Your task to perform on an android device: toggle notification dots Image 0: 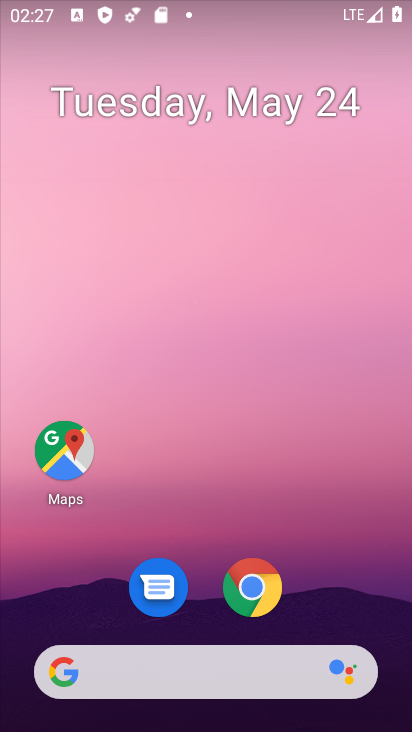
Step 0: drag from (213, 716) to (203, 211)
Your task to perform on an android device: toggle notification dots Image 1: 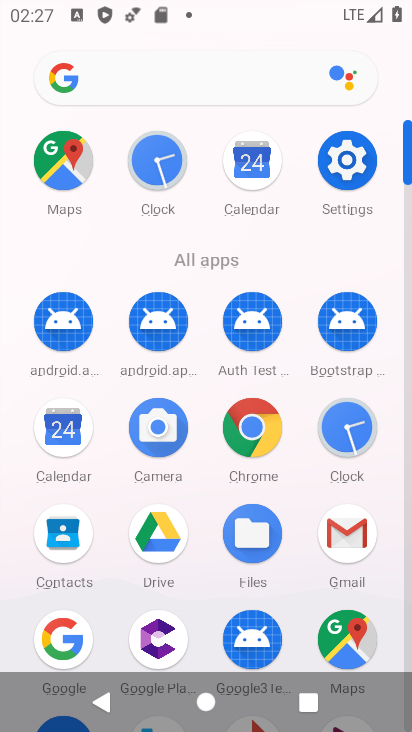
Step 1: click (345, 171)
Your task to perform on an android device: toggle notification dots Image 2: 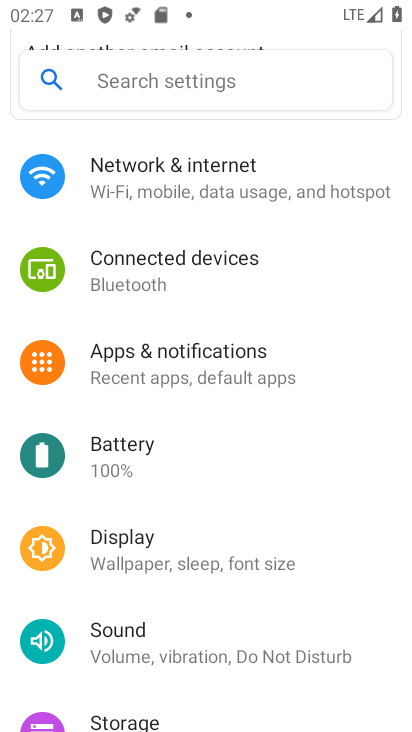
Step 2: click (213, 357)
Your task to perform on an android device: toggle notification dots Image 3: 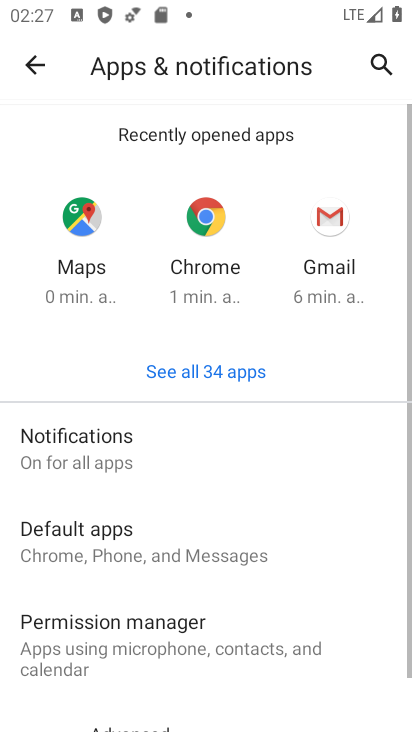
Step 3: drag from (316, 673) to (283, 128)
Your task to perform on an android device: toggle notification dots Image 4: 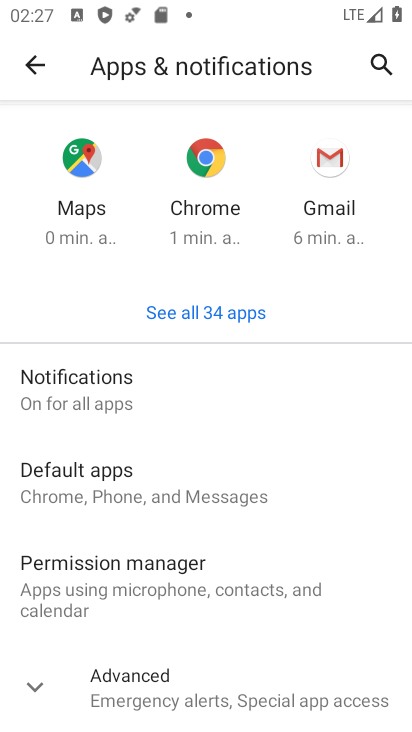
Step 4: click (131, 386)
Your task to perform on an android device: toggle notification dots Image 5: 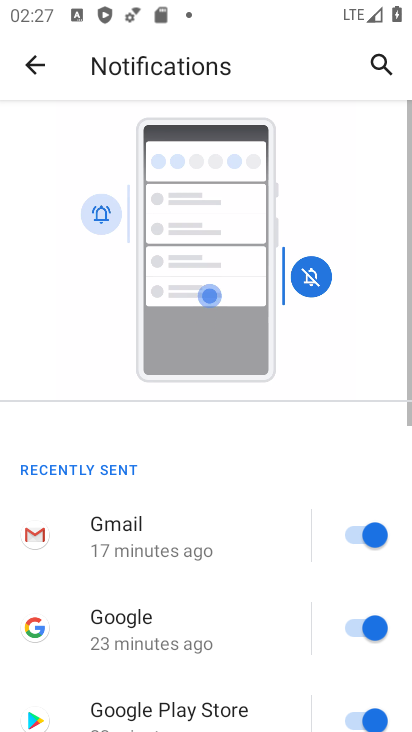
Step 5: drag from (235, 648) to (242, 72)
Your task to perform on an android device: toggle notification dots Image 6: 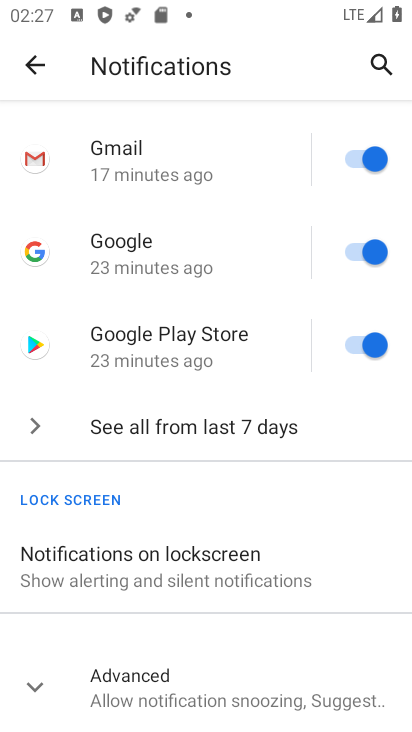
Step 6: drag from (304, 655) to (286, 174)
Your task to perform on an android device: toggle notification dots Image 7: 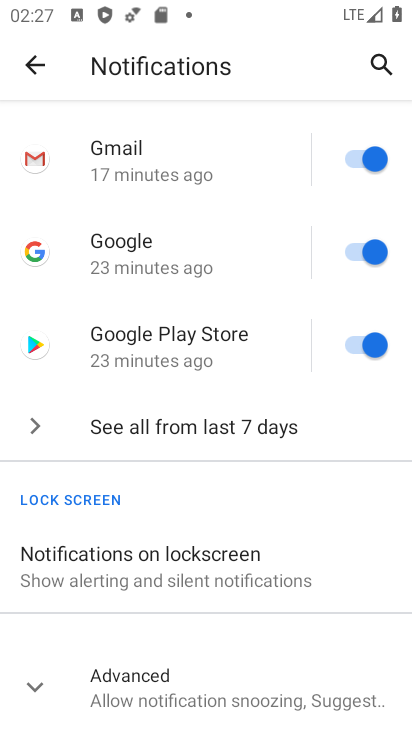
Step 7: click (198, 697)
Your task to perform on an android device: toggle notification dots Image 8: 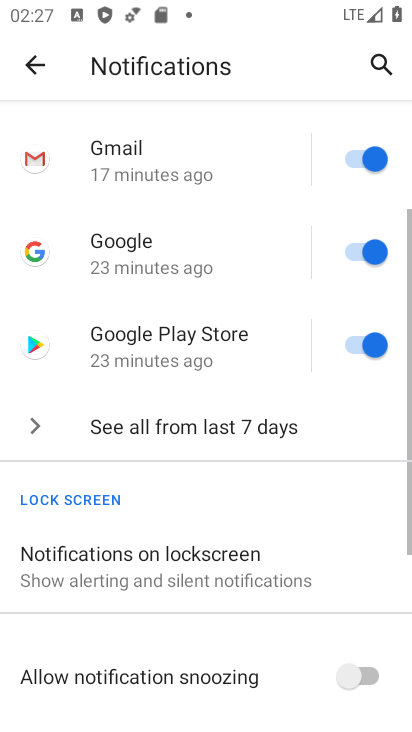
Step 8: drag from (252, 605) to (193, 133)
Your task to perform on an android device: toggle notification dots Image 9: 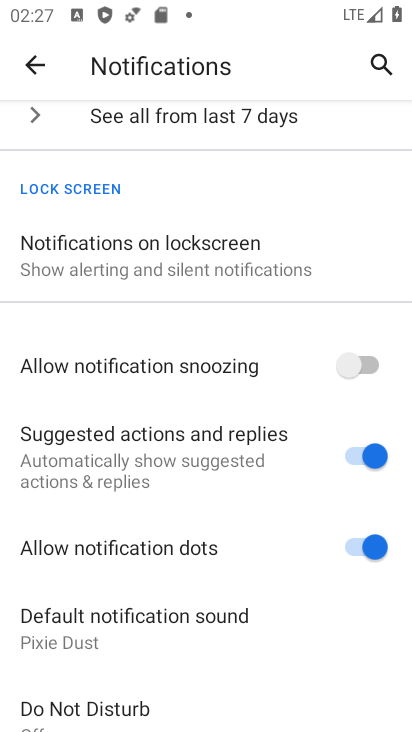
Step 9: click (372, 550)
Your task to perform on an android device: toggle notification dots Image 10: 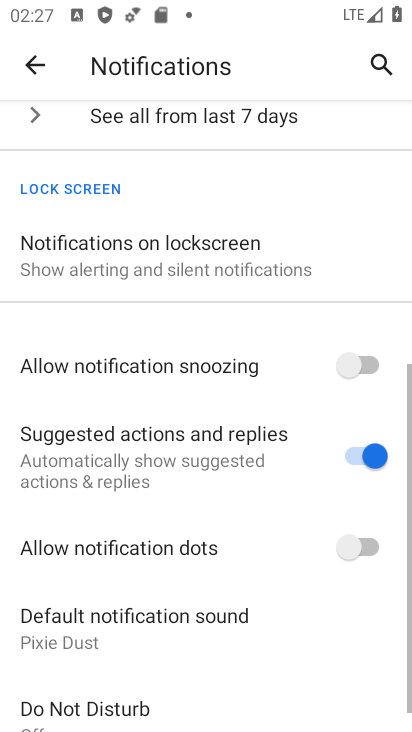
Step 10: task complete